Your task to perform on an android device: turn on improve location accuracy Image 0: 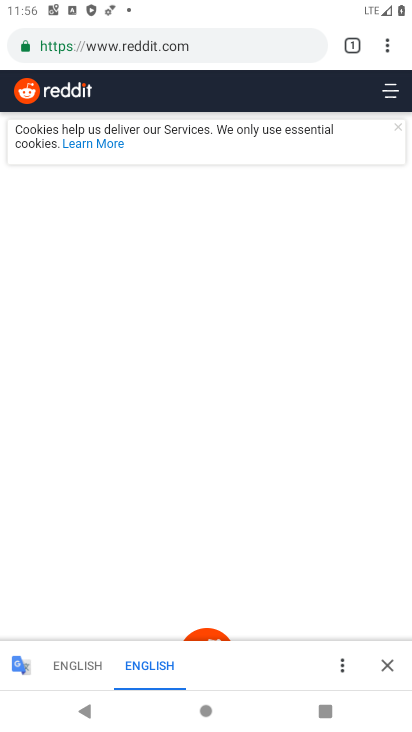
Step 0: press home button
Your task to perform on an android device: turn on improve location accuracy Image 1: 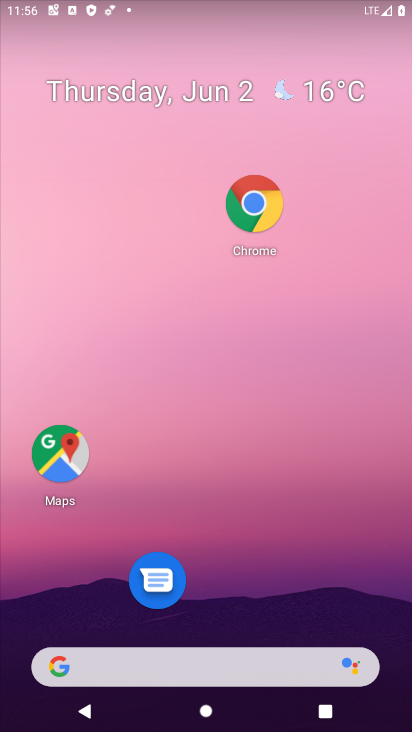
Step 1: drag from (202, 489) to (243, 332)
Your task to perform on an android device: turn on improve location accuracy Image 2: 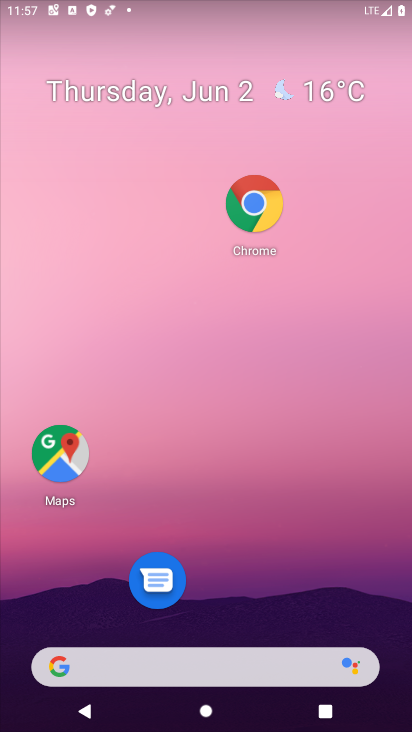
Step 2: drag from (160, 507) to (216, 139)
Your task to perform on an android device: turn on improve location accuracy Image 3: 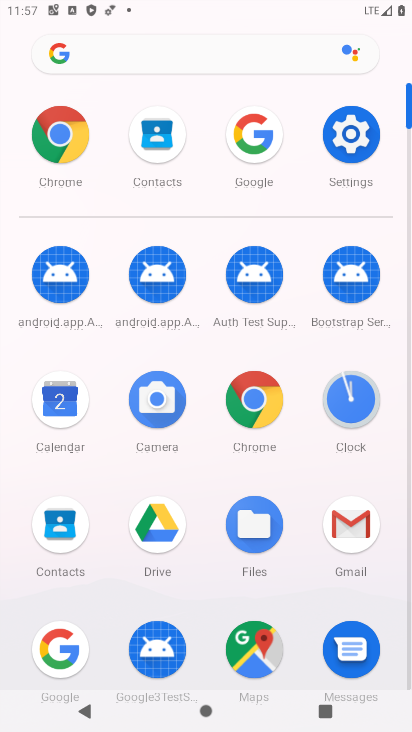
Step 3: click (345, 144)
Your task to perform on an android device: turn on improve location accuracy Image 4: 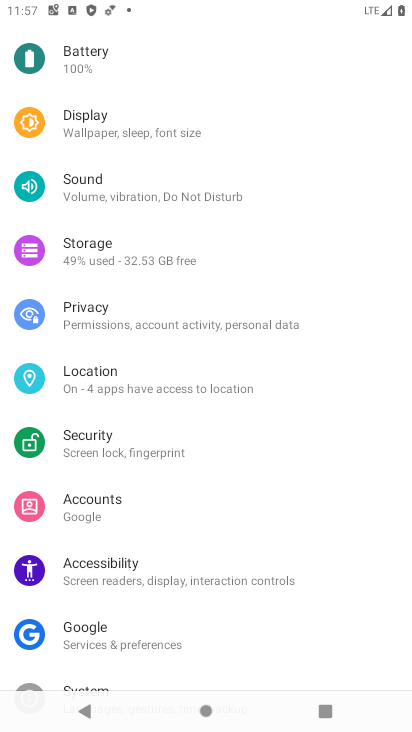
Step 4: drag from (200, 286) to (142, 598)
Your task to perform on an android device: turn on improve location accuracy Image 5: 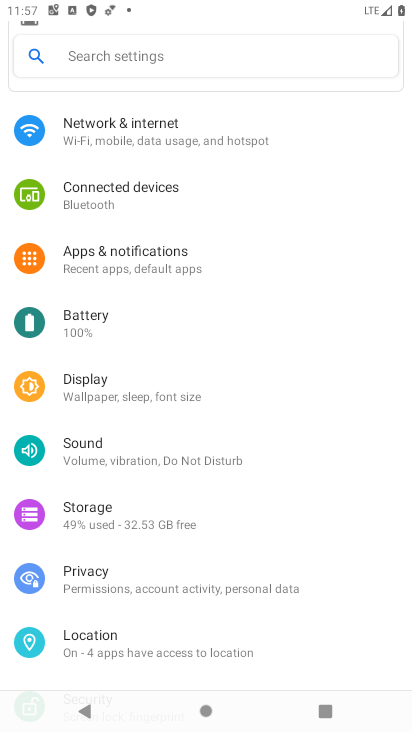
Step 5: click (130, 637)
Your task to perform on an android device: turn on improve location accuracy Image 6: 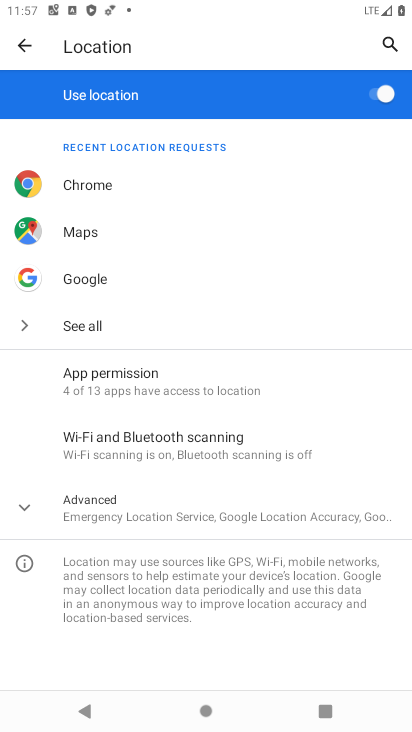
Step 6: click (224, 504)
Your task to perform on an android device: turn on improve location accuracy Image 7: 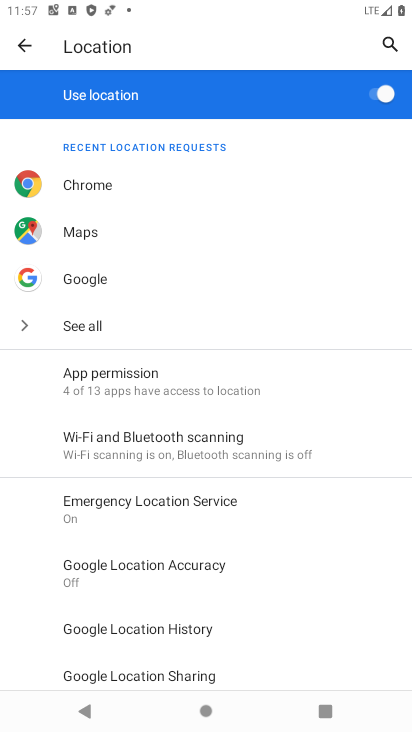
Step 7: click (176, 570)
Your task to perform on an android device: turn on improve location accuracy Image 8: 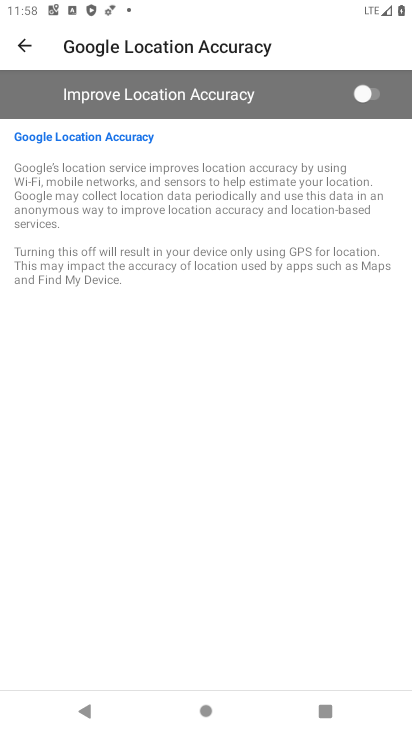
Step 8: click (371, 89)
Your task to perform on an android device: turn on improve location accuracy Image 9: 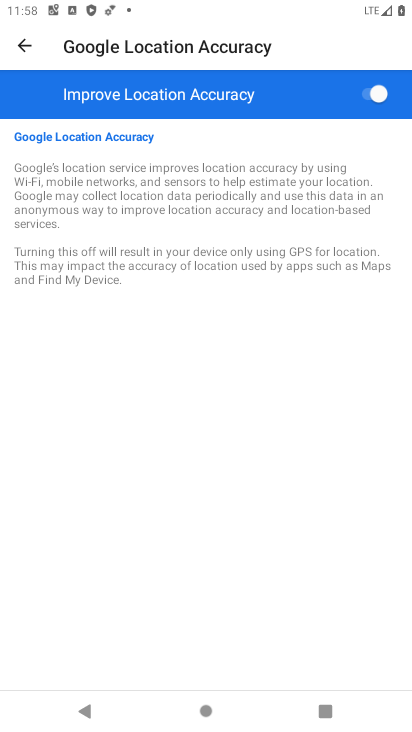
Step 9: task complete